Your task to perform on an android device: turn off priority inbox in the gmail app Image 0: 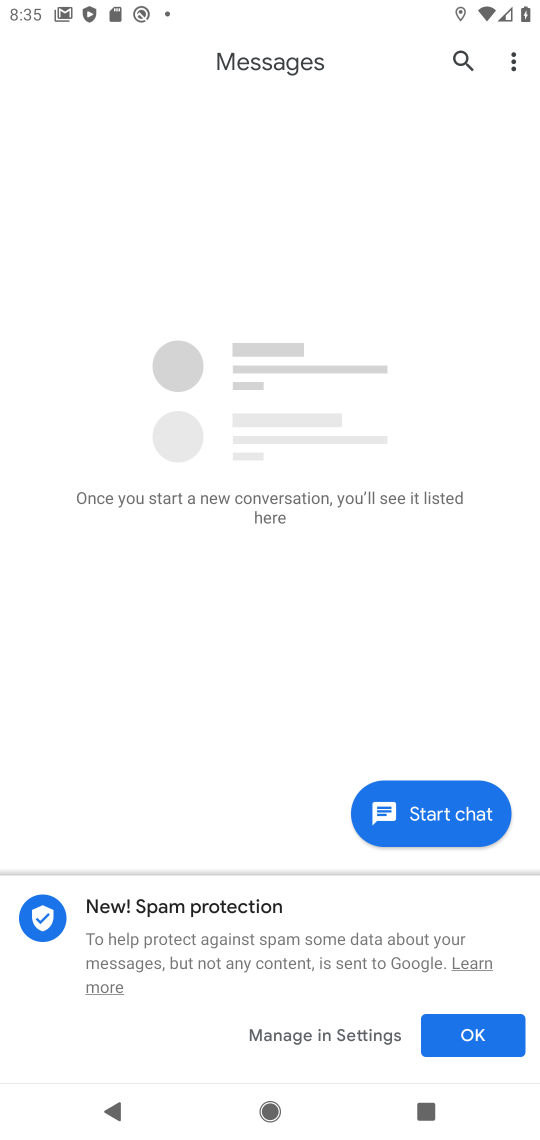
Step 0: press home button
Your task to perform on an android device: turn off priority inbox in the gmail app Image 1: 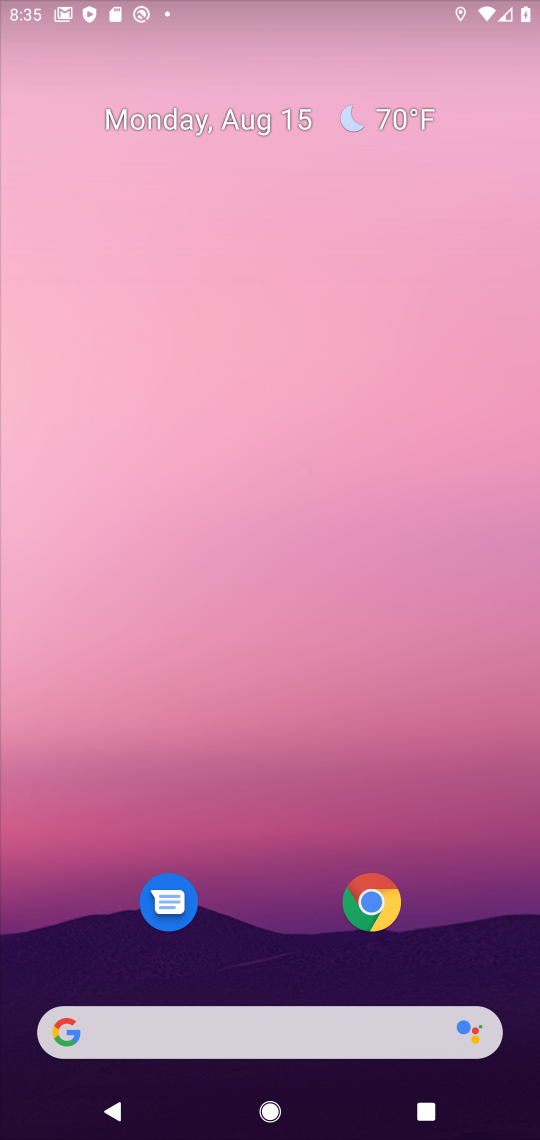
Step 1: drag from (465, 806) to (286, 6)
Your task to perform on an android device: turn off priority inbox in the gmail app Image 2: 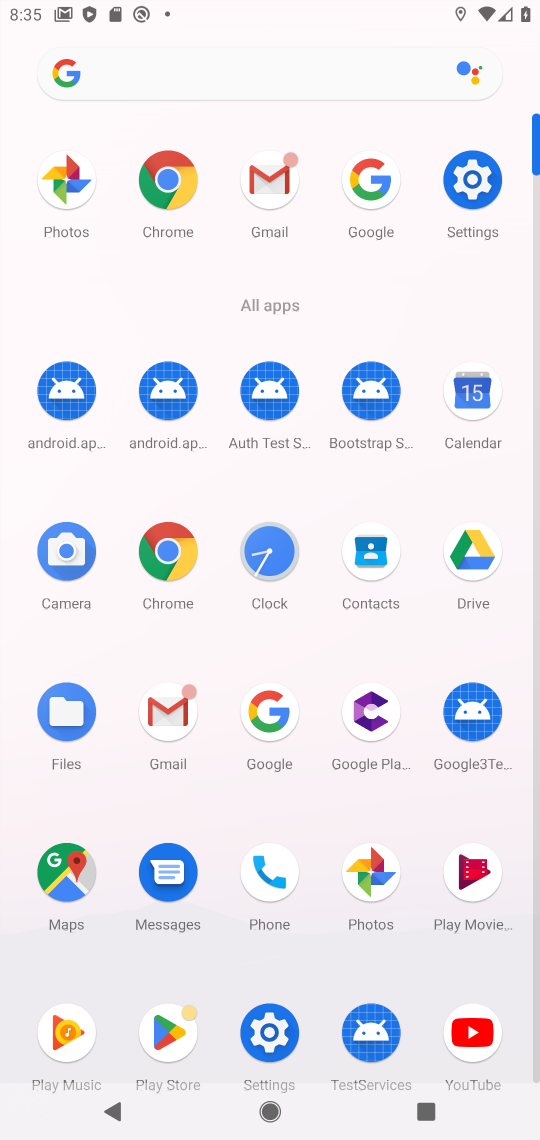
Step 2: click (179, 731)
Your task to perform on an android device: turn off priority inbox in the gmail app Image 3: 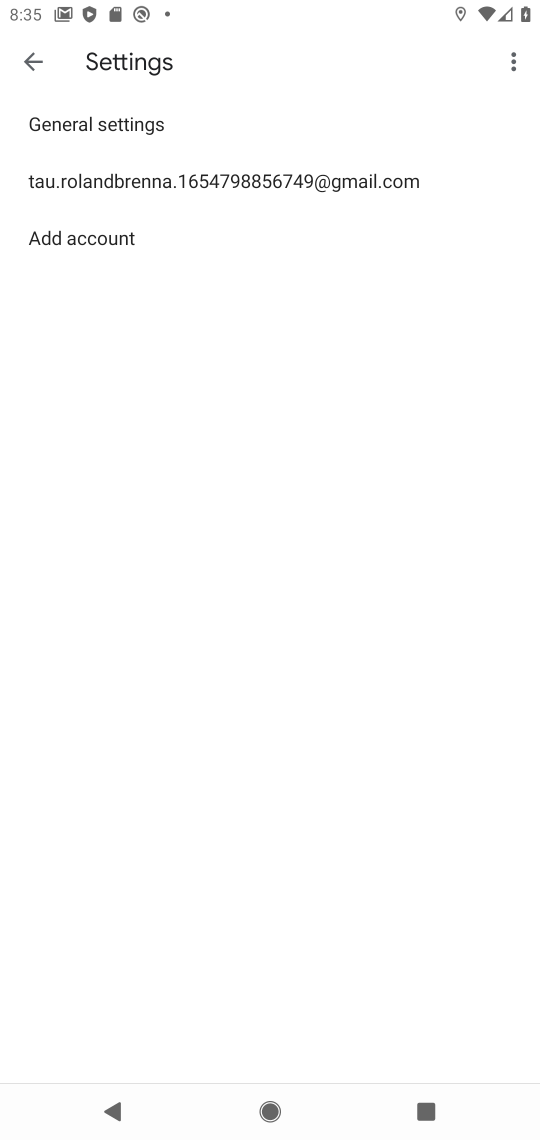
Step 3: click (312, 196)
Your task to perform on an android device: turn off priority inbox in the gmail app Image 4: 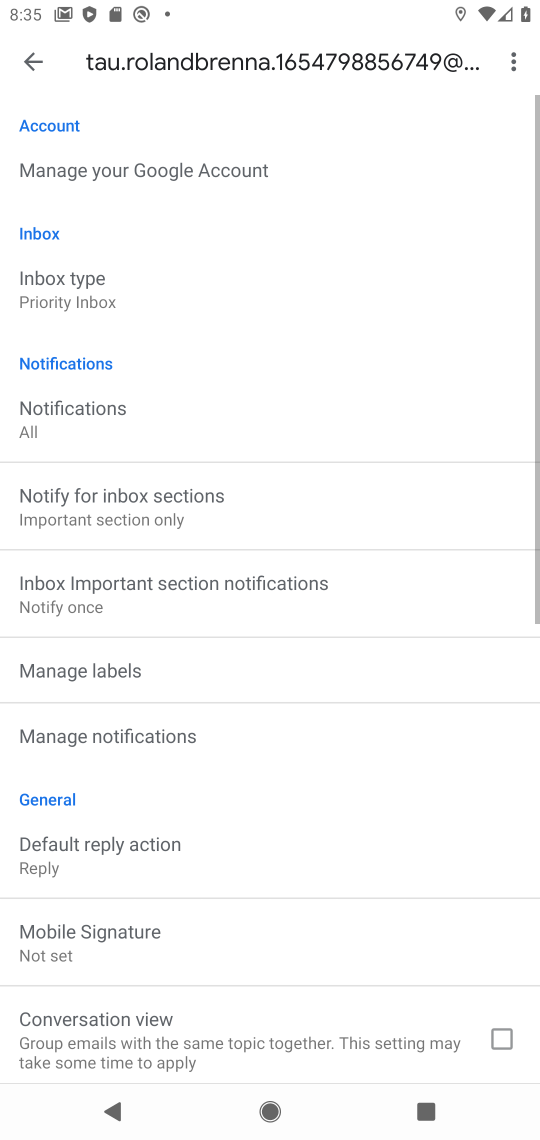
Step 4: click (102, 300)
Your task to perform on an android device: turn off priority inbox in the gmail app Image 5: 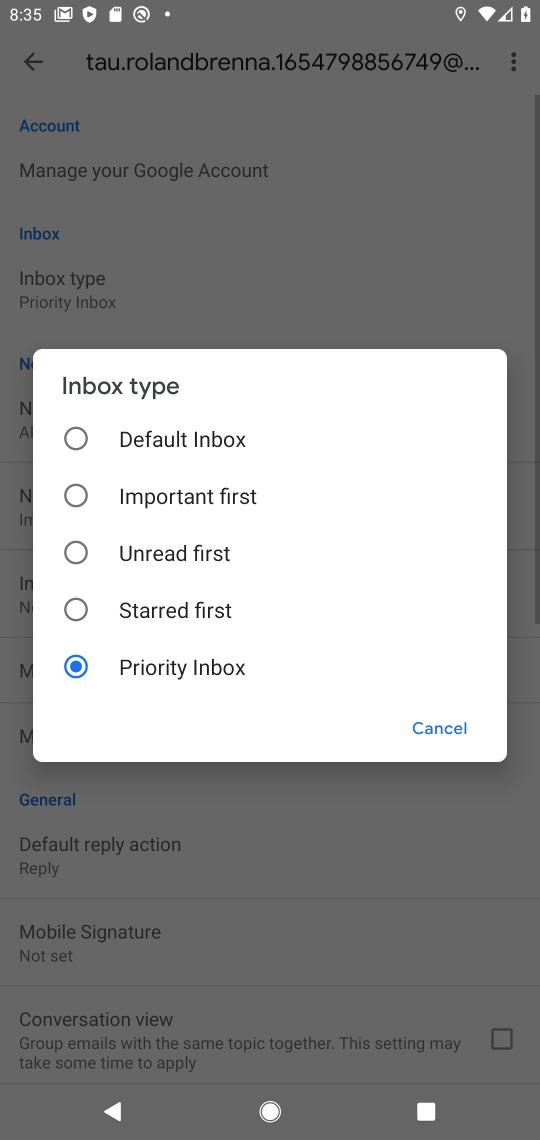
Step 5: click (87, 434)
Your task to perform on an android device: turn off priority inbox in the gmail app Image 6: 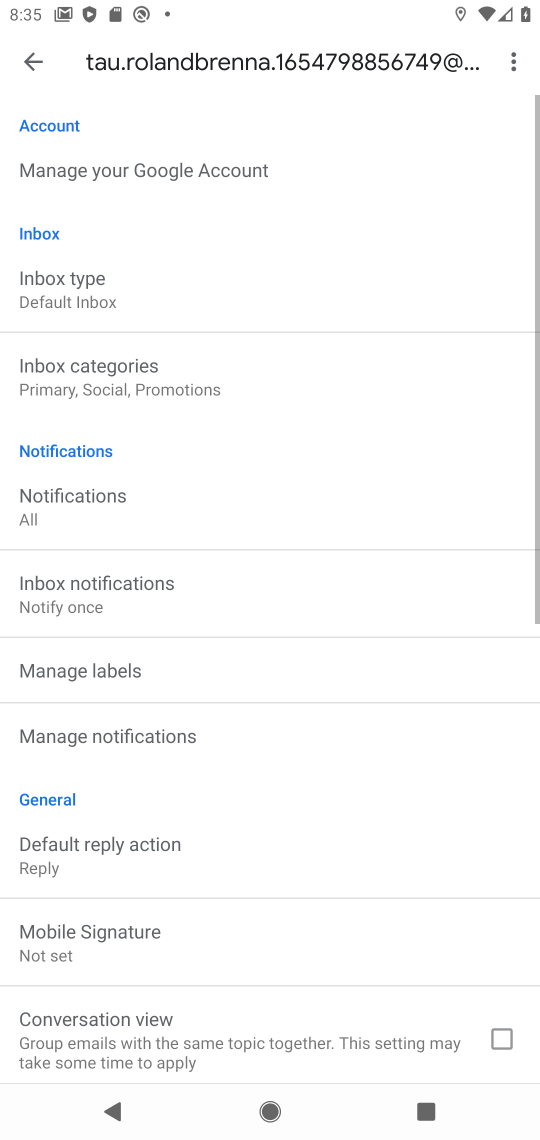
Step 6: task complete